Your task to perform on an android device: Go to Google Image 0: 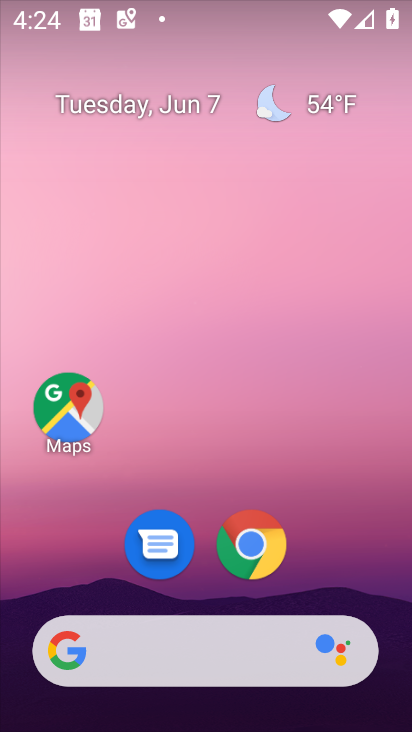
Step 0: task complete